Your task to perform on an android device: When is my next appointment? Image 0: 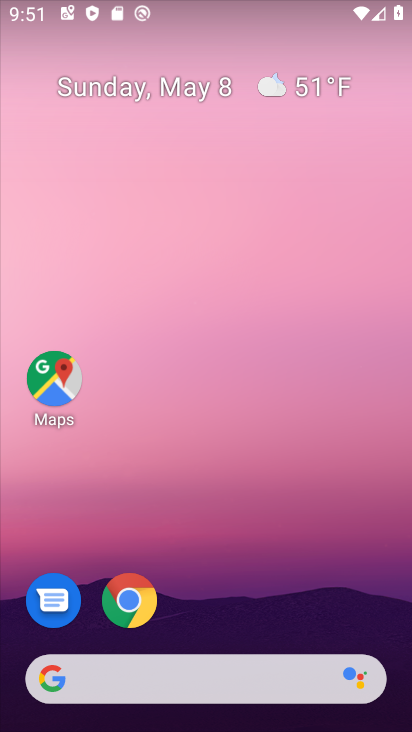
Step 0: drag from (308, 584) to (286, 6)
Your task to perform on an android device: When is my next appointment? Image 1: 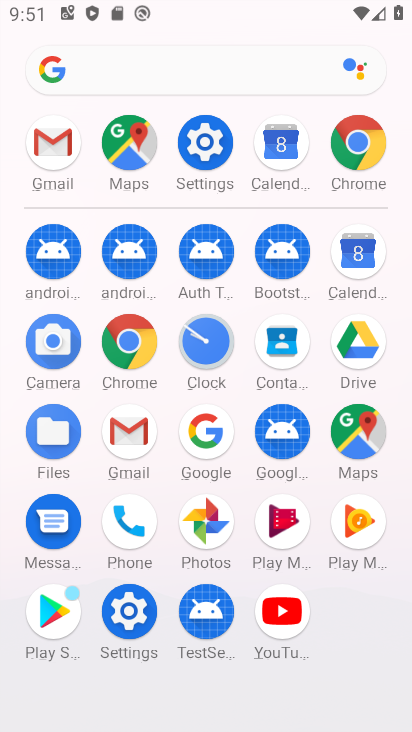
Step 1: click (360, 246)
Your task to perform on an android device: When is my next appointment? Image 2: 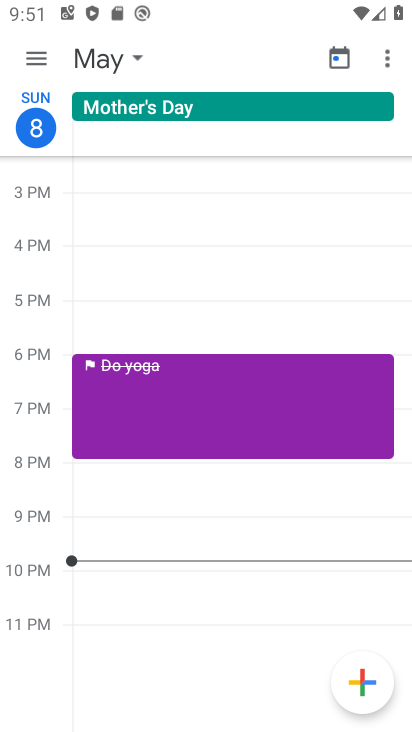
Step 2: click (40, 49)
Your task to perform on an android device: When is my next appointment? Image 3: 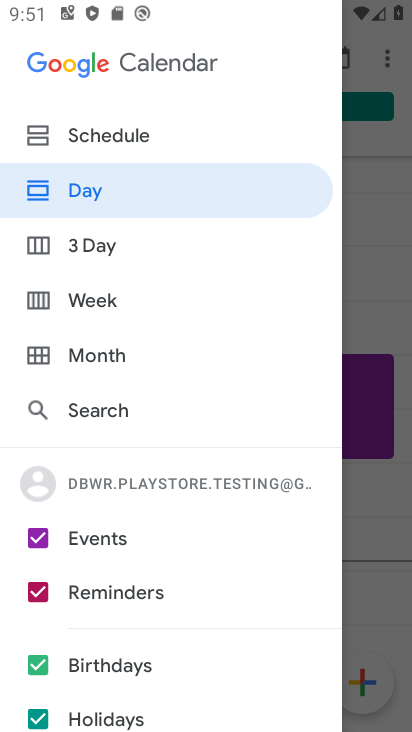
Step 3: click (160, 191)
Your task to perform on an android device: When is my next appointment? Image 4: 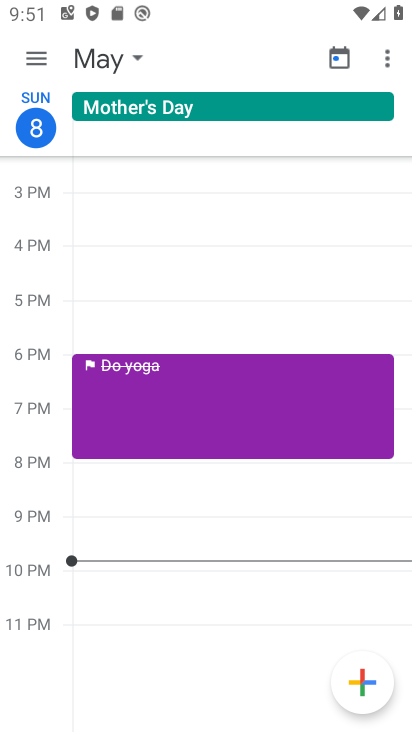
Step 4: click (40, 59)
Your task to perform on an android device: When is my next appointment? Image 5: 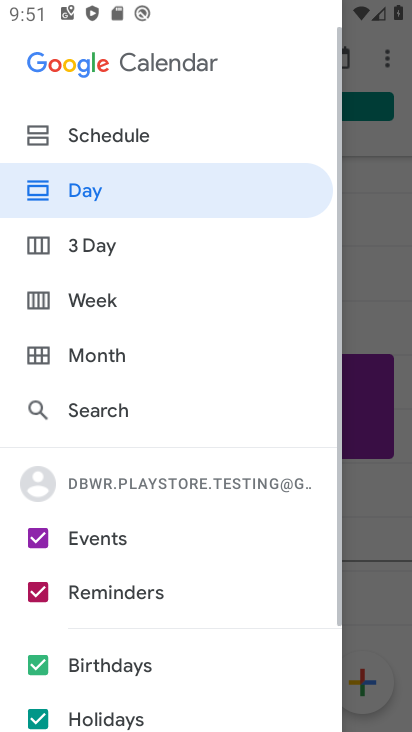
Step 5: click (120, 130)
Your task to perform on an android device: When is my next appointment? Image 6: 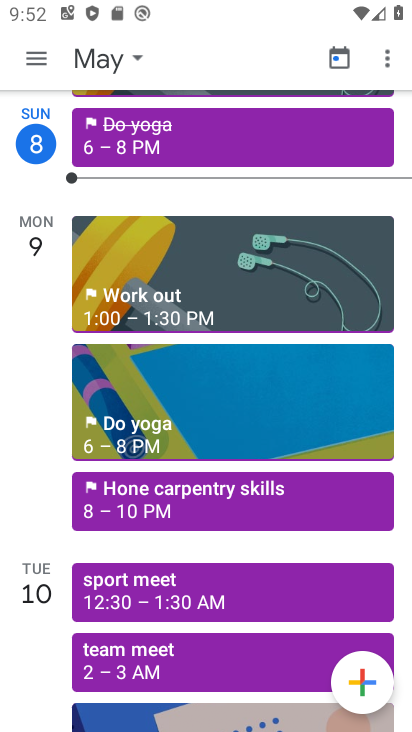
Step 6: task complete